Your task to perform on an android device: Go to Google maps Image 0: 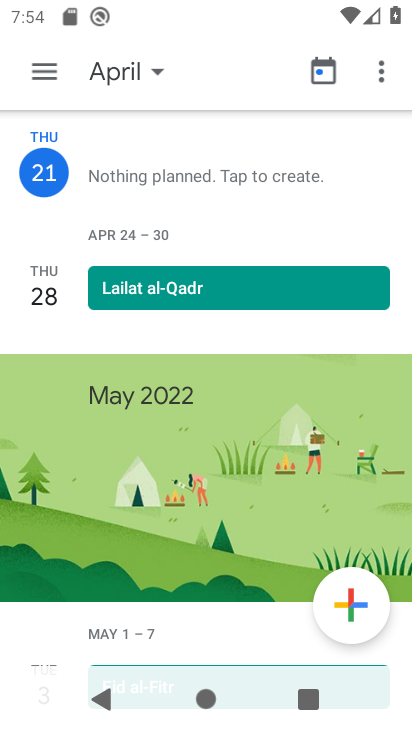
Step 0: press back button
Your task to perform on an android device: Go to Google maps Image 1: 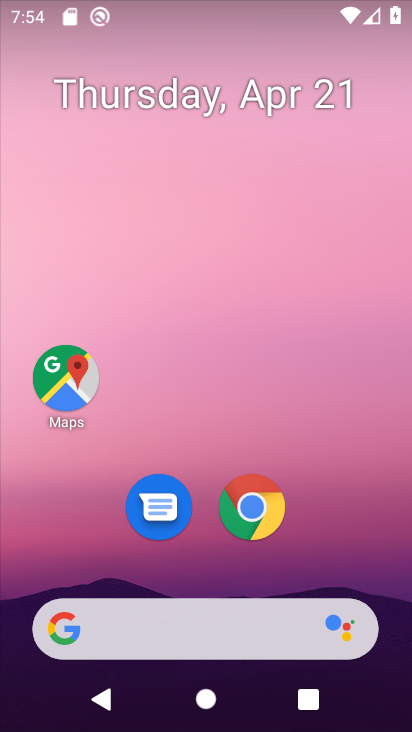
Step 1: click (67, 379)
Your task to perform on an android device: Go to Google maps Image 2: 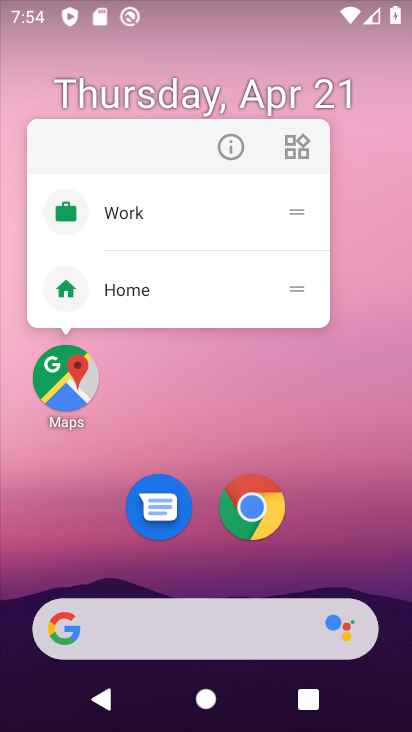
Step 2: click (70, 382)
Your task to perform on an android device: Go to Google maps Image 3: 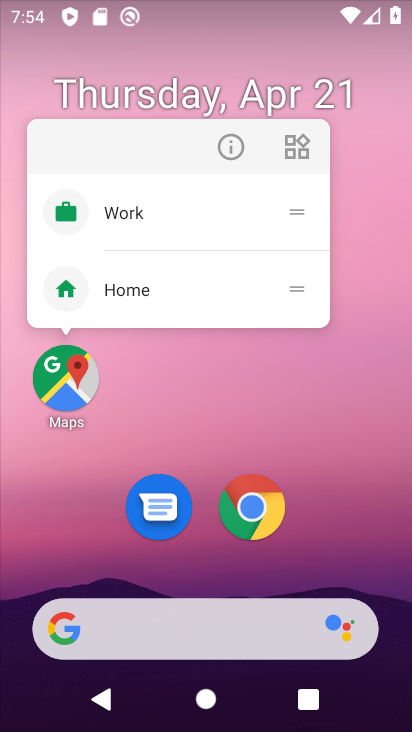
Step 3: click (57, 358)
Your task to perform on an android device: Go to Google maps Image 4: 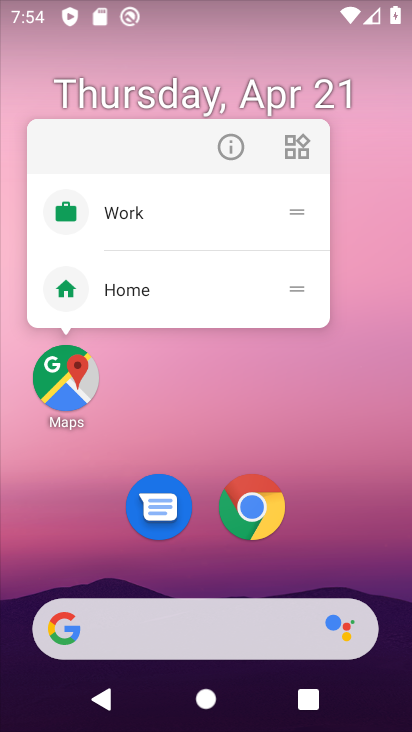
Step 4: click (69, 384)
Your task to perform on an android device: Go to Google maps Image 5: 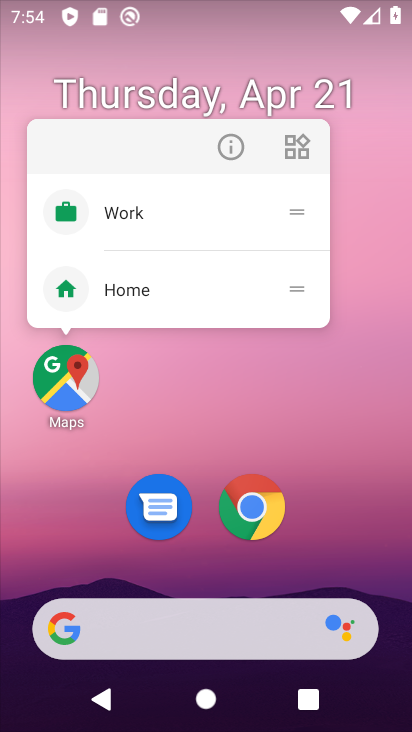
Step 5: click (63, 391)
Your task to perform on an android device: Go to Google maps Image 6: 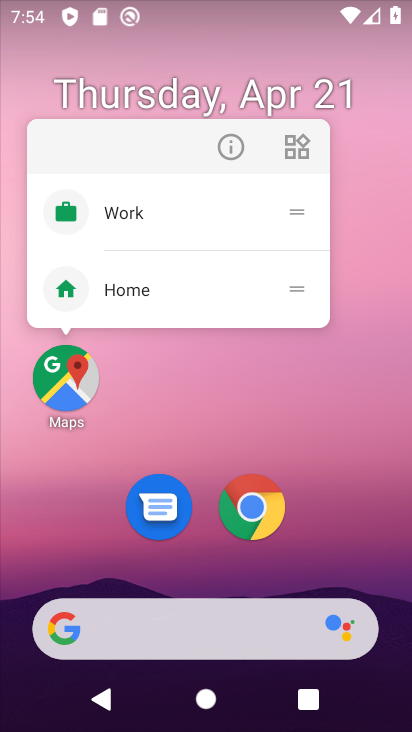
Step 6: click (70, 379)
Your task to perform on an android device: Go to Google maps Image 7: 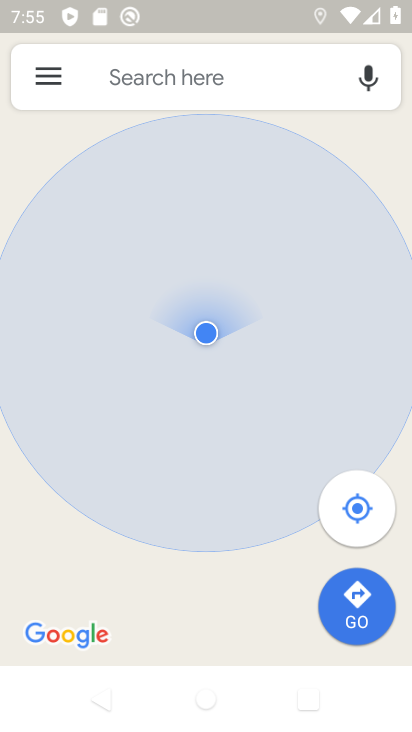
Step 7: task complete